Your task to perform on an android device: Open location settings Image 0: 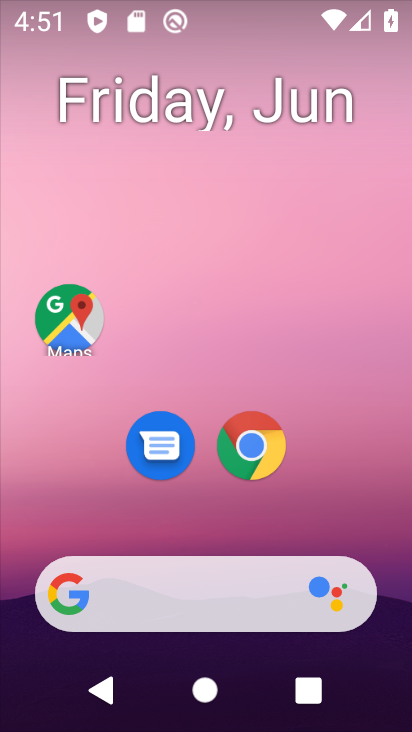
Step 0: drag from (394, 610) to (299, 16)
Your task to perform on an android device: Open location settings Image 1: 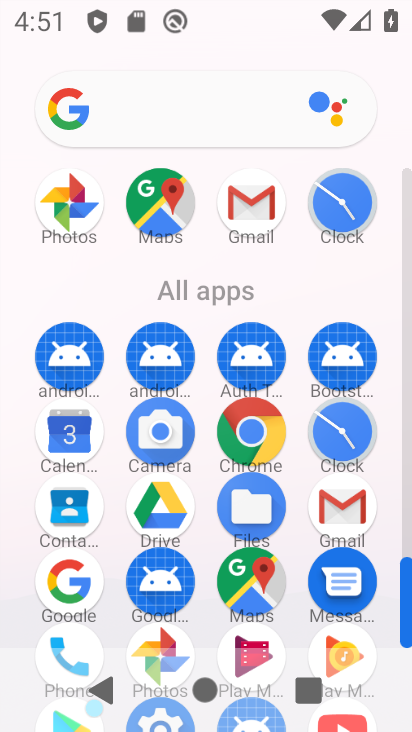
Step 1: drag from (0, 500) to (0, 131)
Your task to perform on an android device: Open location settings Image 2: 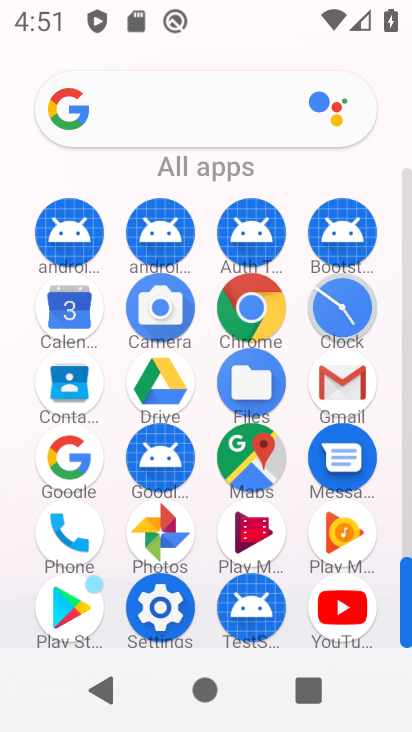
Step 2: click (159, 604)
Your task to perform on an android device: Open location settings Image 3: 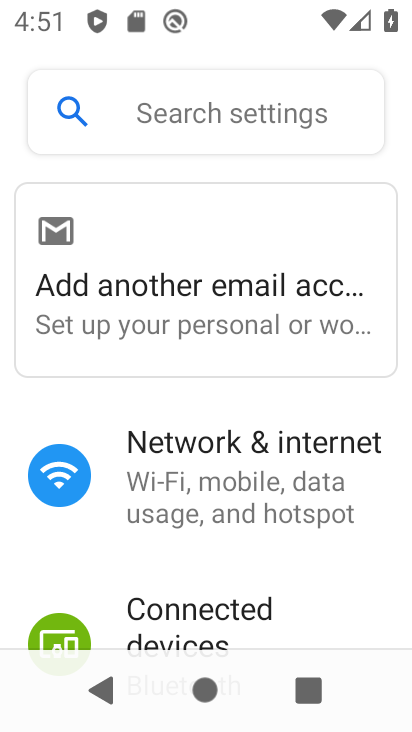
Step 3: drag from (329, 534) to (329, 188)
Your task to perform on an android device: Open location settings Image 4: 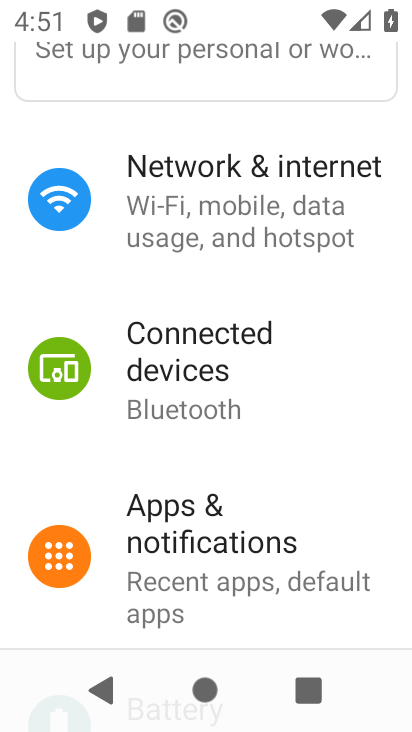
Step 4: drag from (284, 228) to (288, 150)
Your task to perform on an android device: Open location settings Image 5: 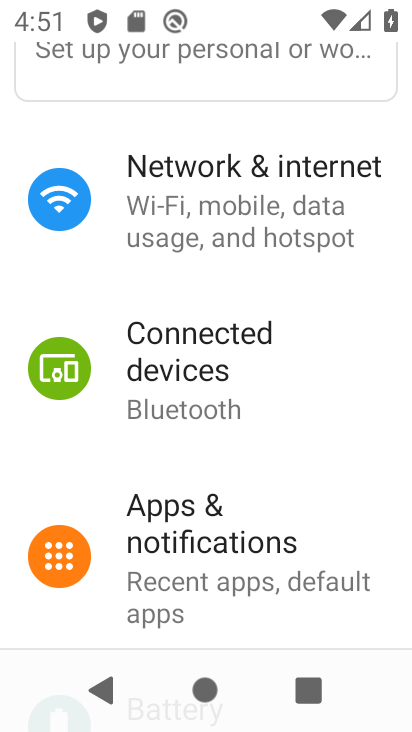
Step 5: drag from (283, 541) to (282, 171)
Your task to perform on an android device: Open location settings Image 6: 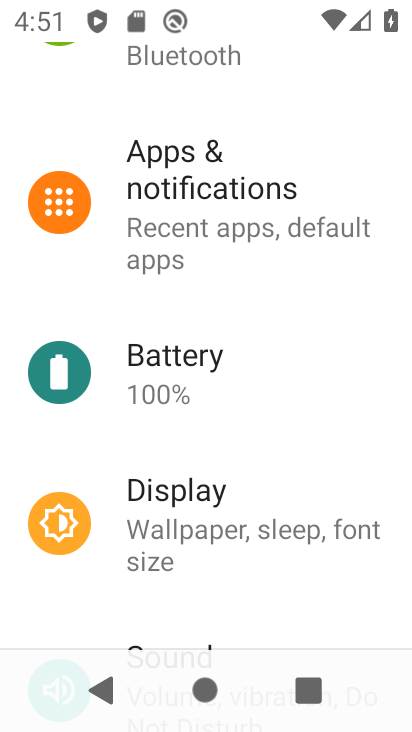
Step 6: drag from (262, 332) to (263, 139)
Your task to perform on an android device: Open location settings Image 7: 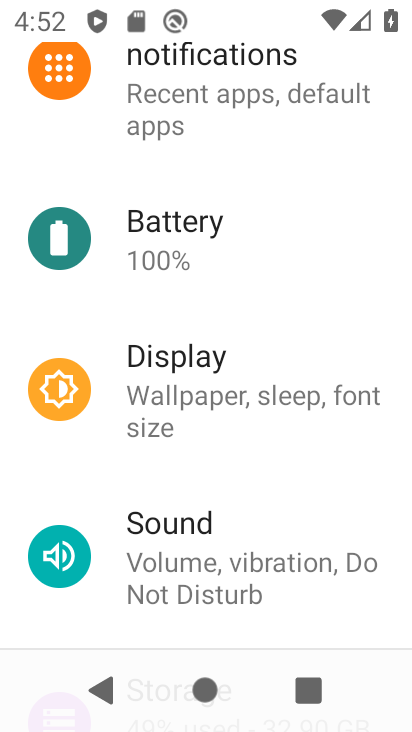
Step 7: drag from (245, 504) to (263, 173)
Your task to perform on an android device: Open location settings Image 8: 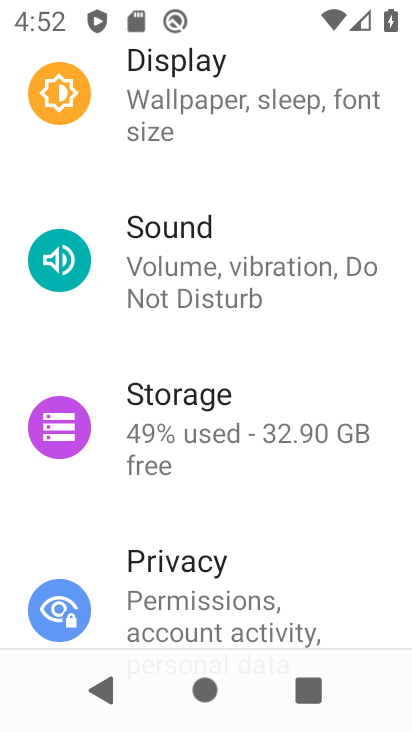
Step 8: drag from (228, 587) to (233, 174)
Your task to perform on an android device: Open location settings Image 9: 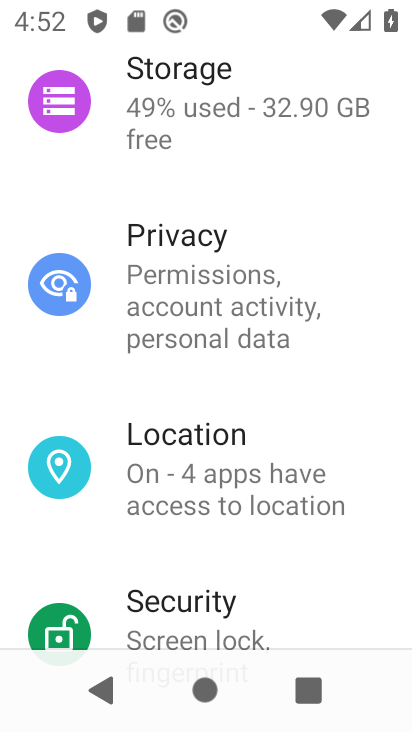
Step 9: click (200, 458)
Your task to perform on an android device: Open location settings Image 10: 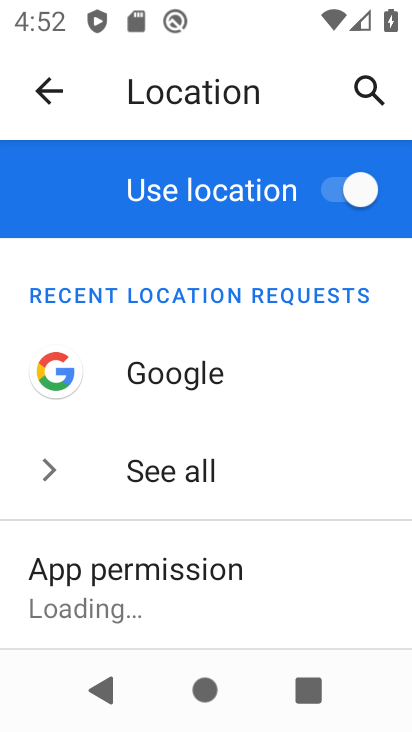
Step 10: drag from (228, 547) to (227, 205)
Your task to perform on an android device: Open location settings Image 11: 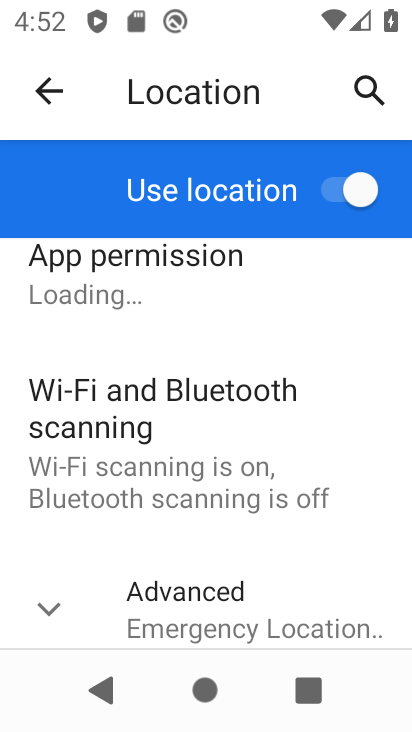
Step 11: drag from (227, 565) to (229, 260)
Your task to perform on an android device: Open location settings Image 12: 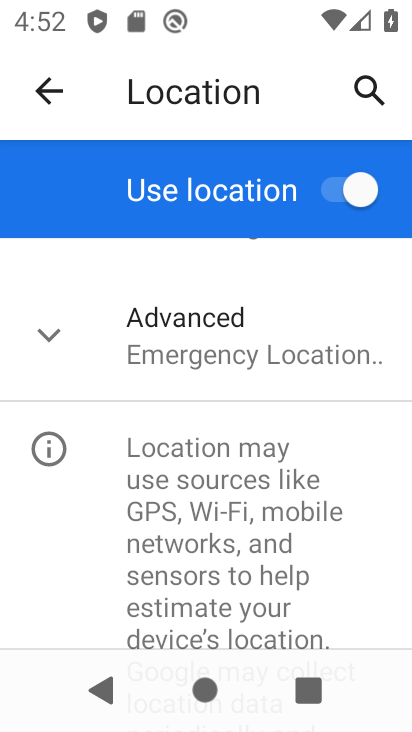
Step 12: click (62, 334)
Your task to perform on an android device: Open location settings Image 13: 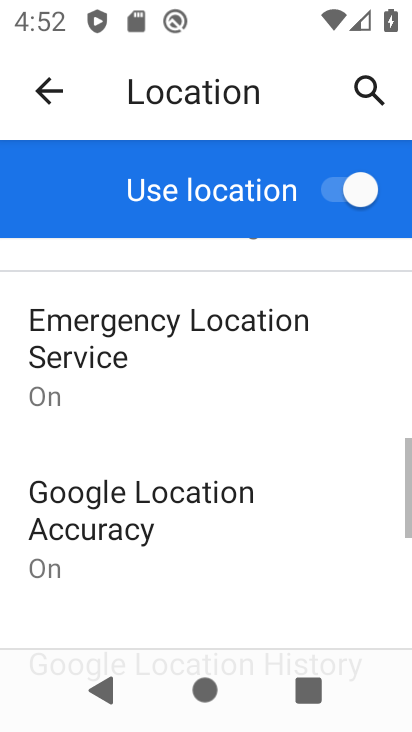
Step 13: task complete